Your task to perform on an android device: What's the weather? Image 0: 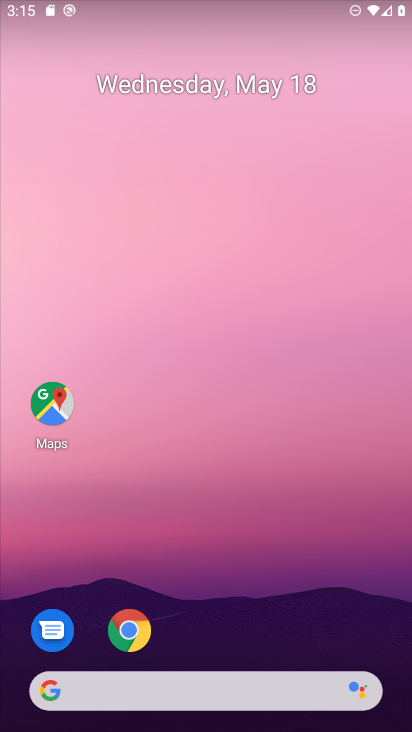
Step 0: drag from (10, 216) to (411, 250)
Your task to perform on an android device: What's the weather? Image 1: 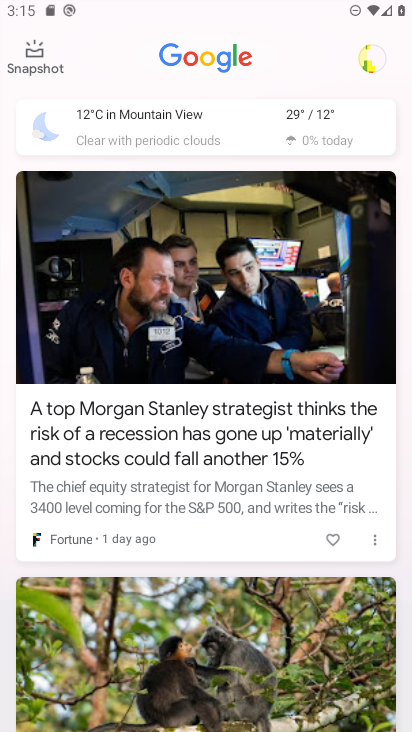
Step 1: click (299, 125)
Your task to perform on an android device: What's the weather? Image 2: 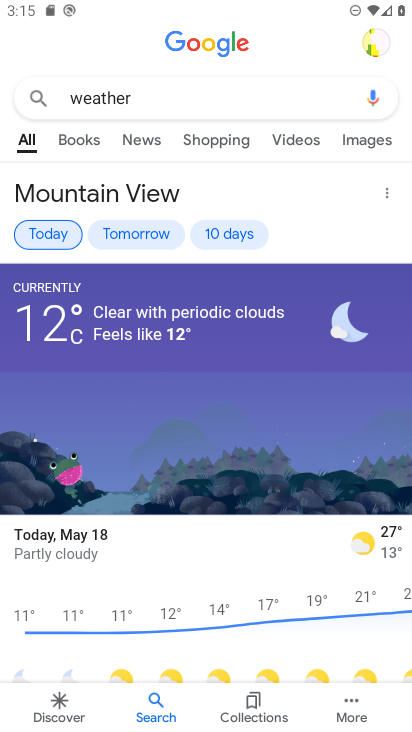
Step 2: task complete